Your task to perform on an android device: clear history in the chrome app Image 0: 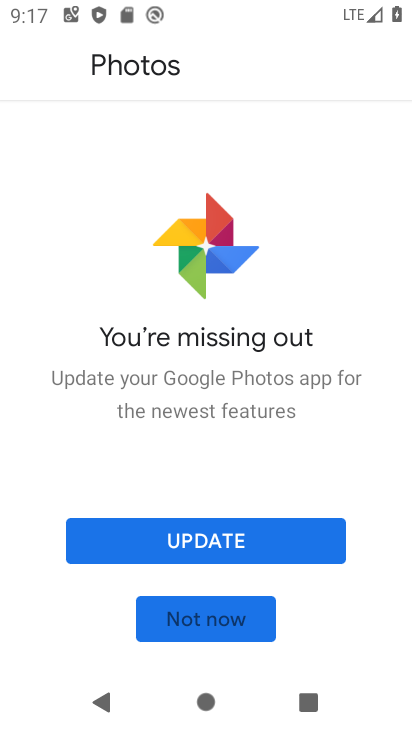
Step 0: press home button
Your task to perform on an android device: clear history in the chrome app Image 1: 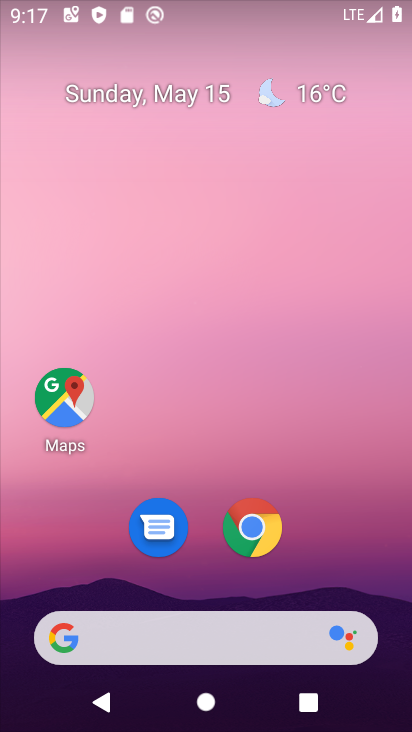
Step 1: click (261, 537)
Your task to perform on an android device: clear history in the chrome app Image 2: 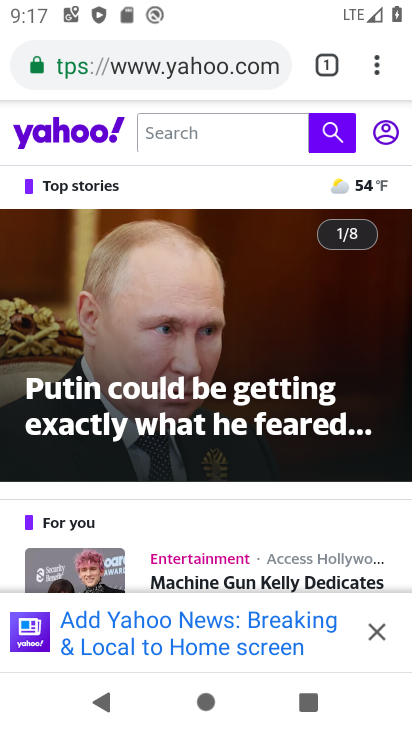
Step 2: click (381, 69)
Your task to perform on an android device: clear history in the chrome app Image 3: 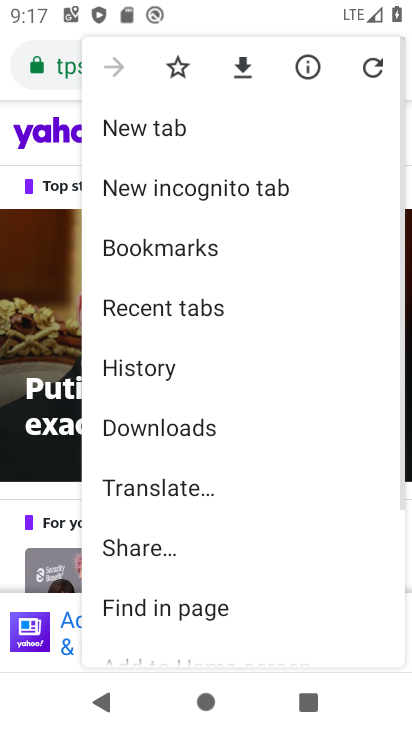
Step 3: drag from (156, 534) to (206, 145)
Your task to perform on an android device: clear history in the chrome app Image 4: 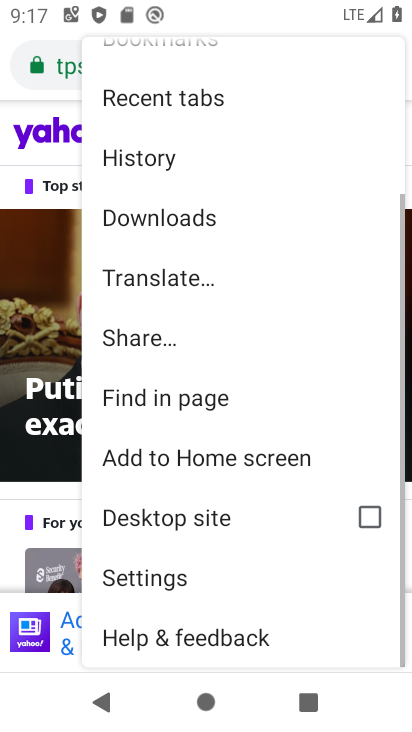
Step 4: click (173, 580)
Your task to perform on an android device: clear history in the chrome app Image 5: 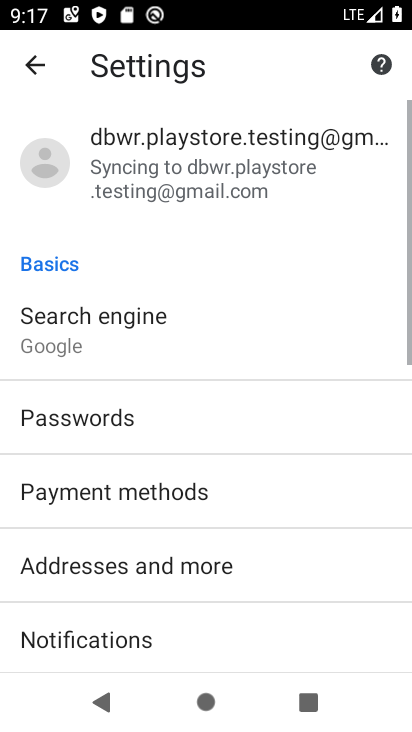
Step 5: drag from (199, 625) to (151, 80)
Your task to perform on an android device: clear history in the chrome app Image 6: 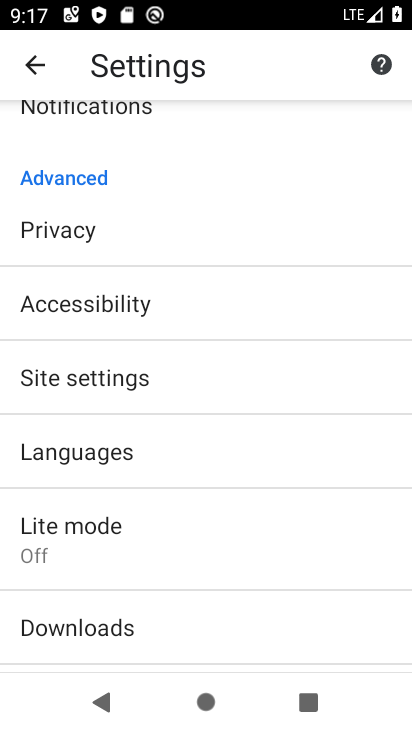
Step 6: click (53, 230)
Your task to perform on an android device: clear history in the chrome app Image 7: 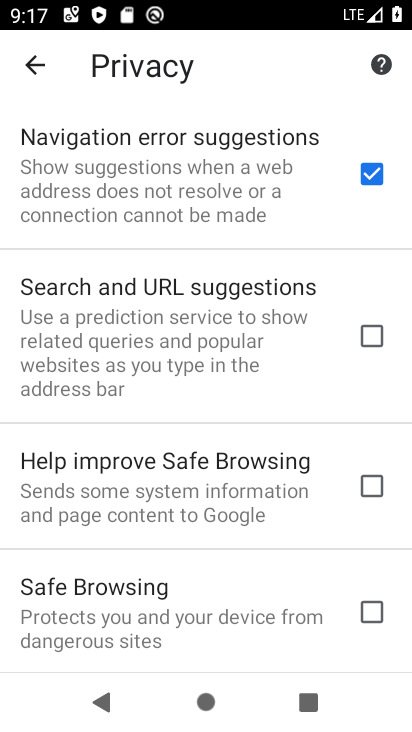
Step 7: drag from (206, 581) to (167, 123)
Your task to perform on an android device: clear history in the chrome app Image 8: 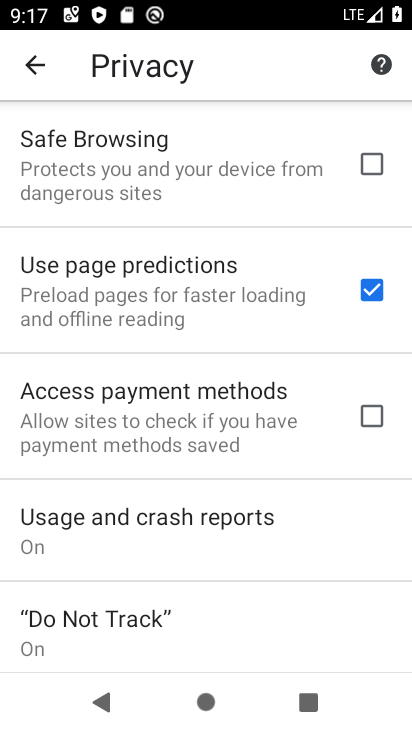
Step 8: drag from (131, 443) to (139, 93)
Your task to perform on an android device: clear history in the chrome app Image 9: 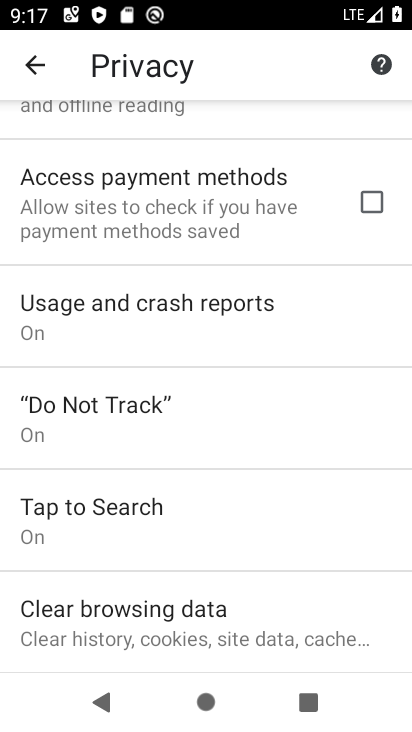
Step 9: click (124, 618)
Your task to perform on an android device: clear history in the chrome app Image 10: 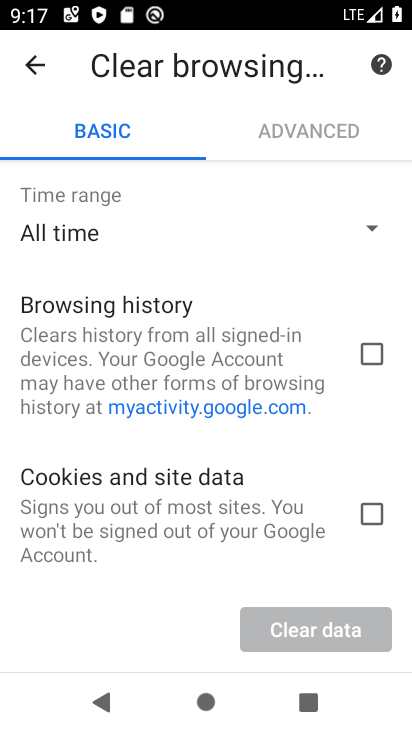
Step 10: click (375, 356)
Your task to perform on an android device: clear history in the chrome app Image 11: 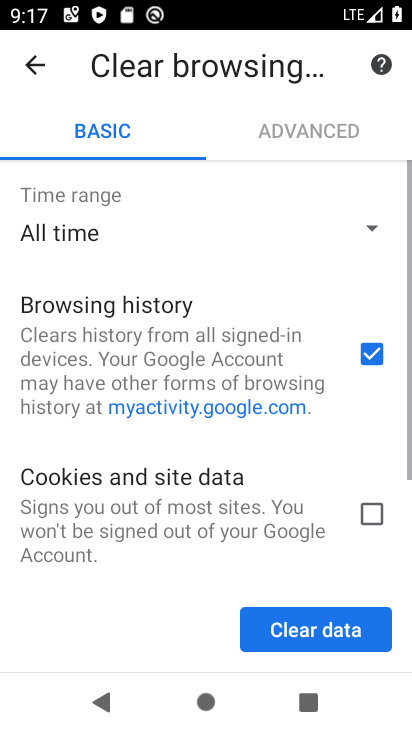
Step 11: drag from (100, 434) to (102, 189)
Your task to perform on an android device: clear history in the chrome app Image 12: 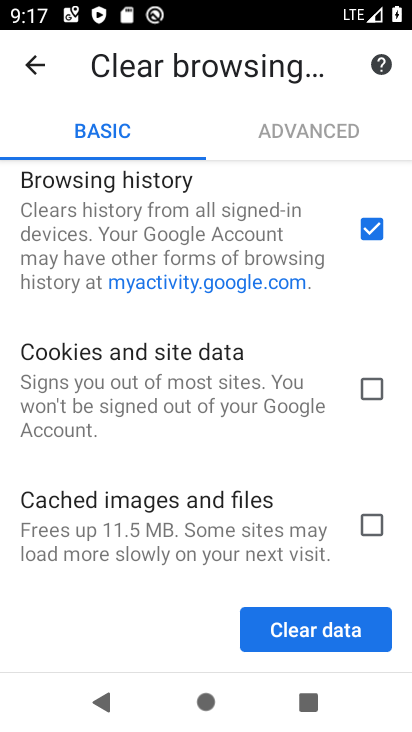
Step 12: click (318, 632)
Your task to perform on an android device: clear history in the chrome app Image 13: 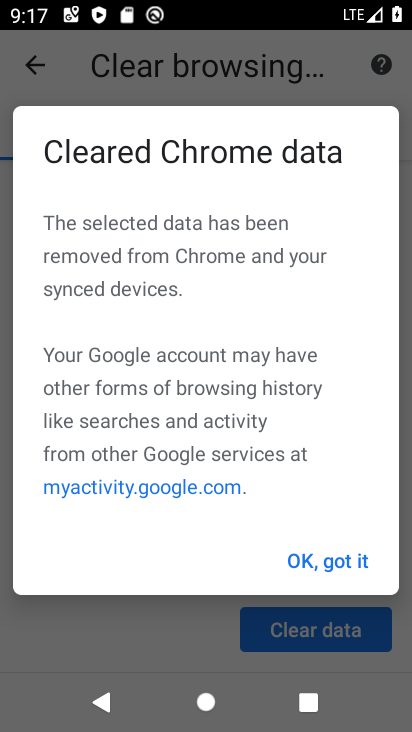
Step 13: click (318, 562)
Your task to perform on an android device: clear history in the chrome app Image 14: 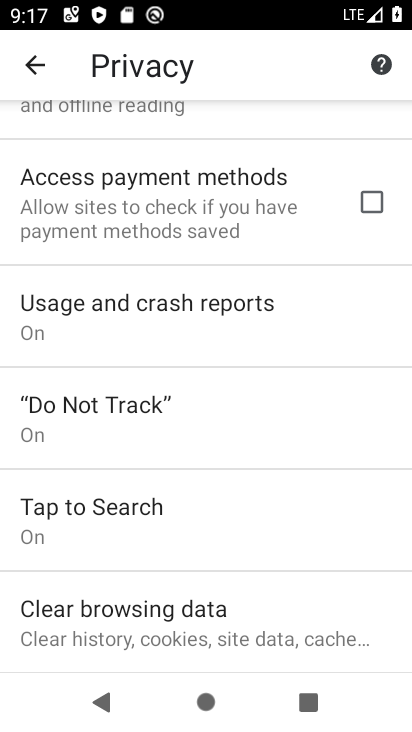
Step 14: task complete